Your task to perform on an android device: turn on data saver in the chrome app Image 0: 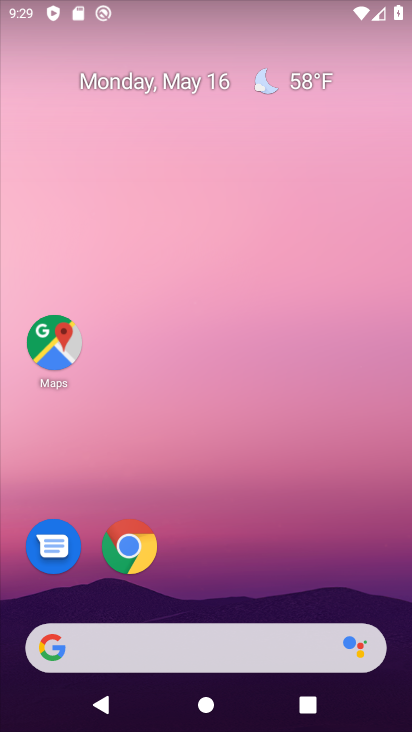
Step 0: click (129, 546)
Your task to perform on an android device: turn on data saver in the chrome app Image 1: 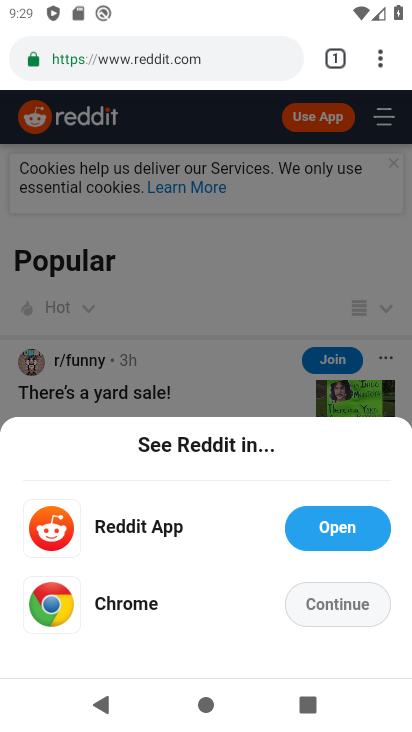
Step 1: click (381, 63)
Your task to perform on an android device: turn on data saver in the chrome app Image 2: 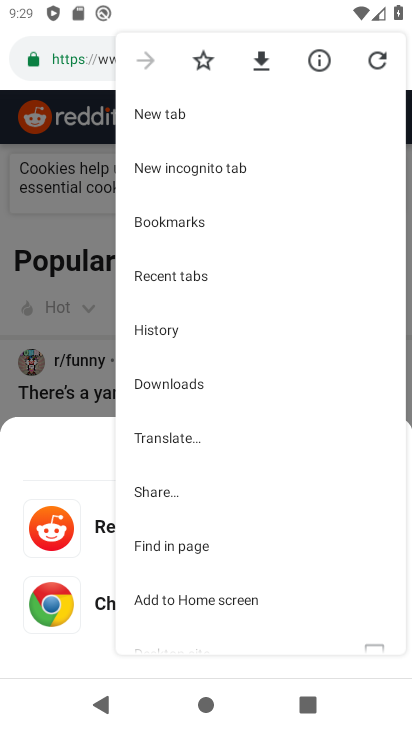
Step 2: drag from (202, 407) to (246, 340)
Your task to perform on an android device: turn on data saver in the chrome app Image 3: 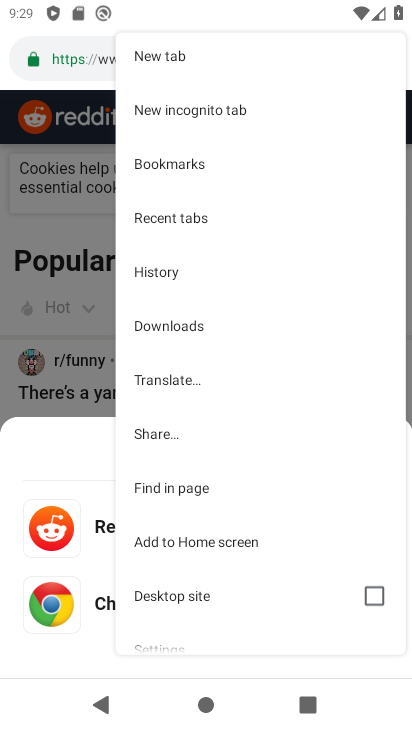
Step 3: drag from (173, 447) to (194, 382)
Your task to perform on an android device: turn on data saver in the chrome app Image 4: 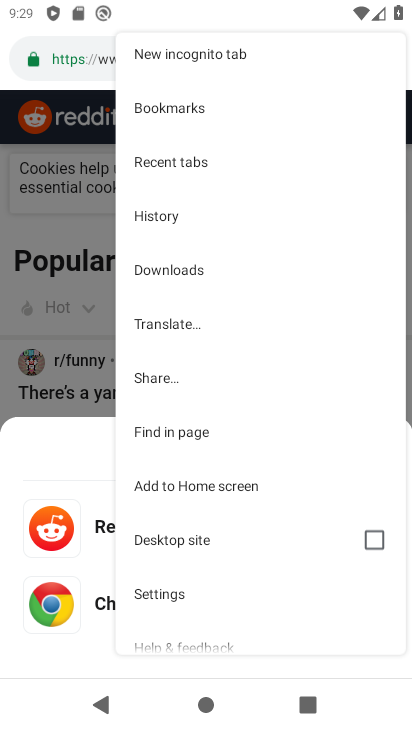
Step 4: drag from (164, 495) to (204, 420)
Your task to perform on an android device: turn on data saver in the chrome app Image 5: 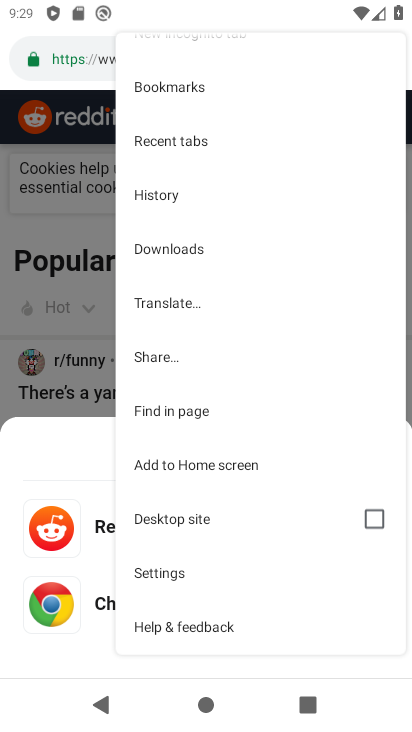
Step 5: click (165, 572)
Your task to perform on an android device: turn on data saver in the chrome app Image 6: 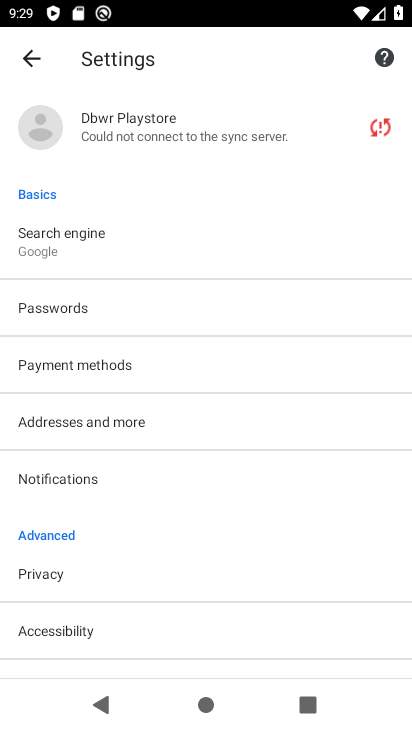
Step 6: drag from (126, 557) to (187, 480)
Your task to perform on an android device: turn on data saver in the chrome app Image 7: 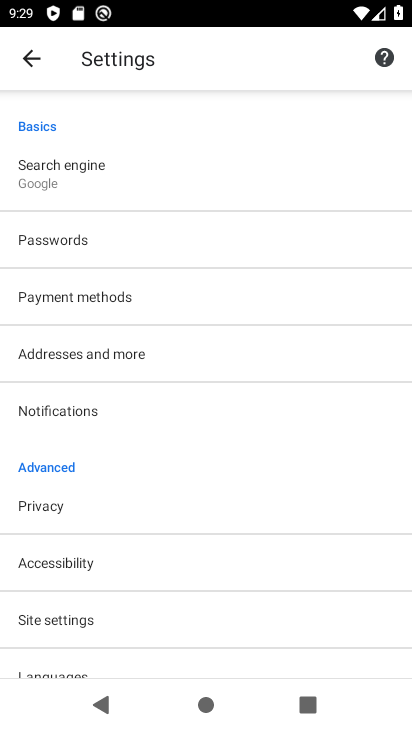
Step 7: drag from (144, 564) to (201, 461)
Your task to perform on an android device: turn on data saver in the chrome app Image 8: 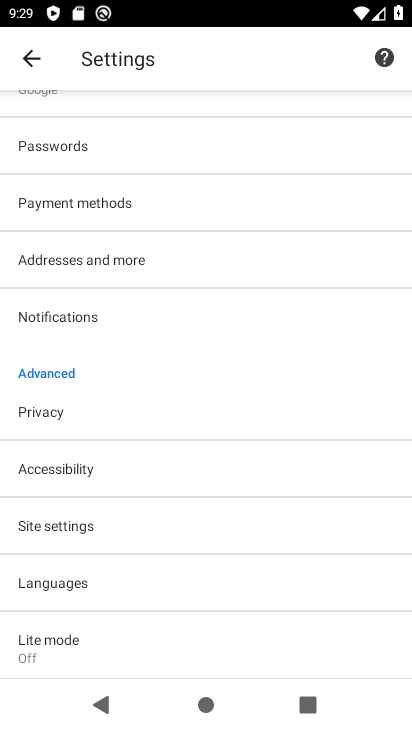
Step 8: click (32, 639)
Your task to perform on an android device: turn on data saver in the chrome app Image 9: 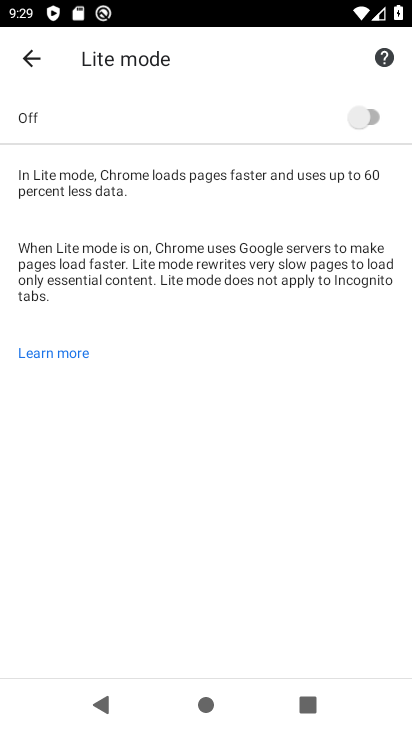
Step 9: click (359, 116)
Your task to perform on an android device: turn on data saver in the chrome app Image 10: 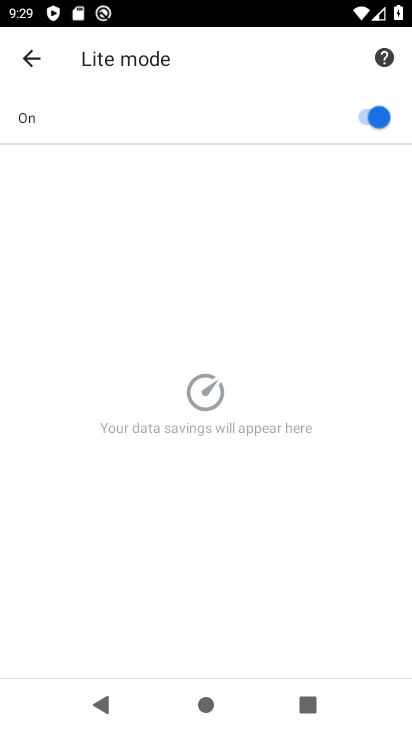
Step 10: task complete